Your task to perform on an android device: read, delete, or share a saved page in the chrome app Image 0: 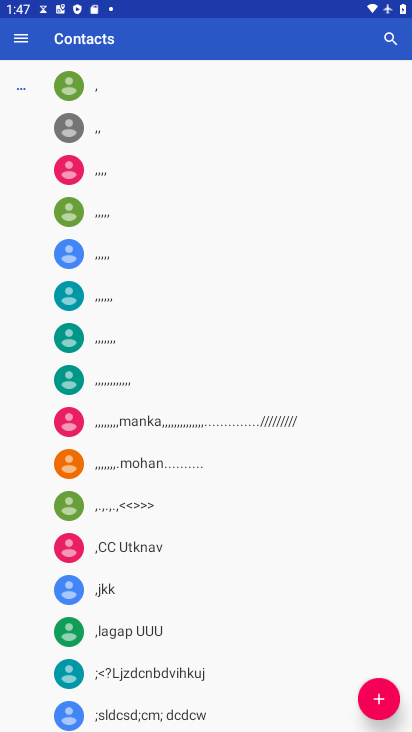
Step 0: press home button
Your task to perform on an android device: read, delete, or share a saved page in the chrome app Image 1: 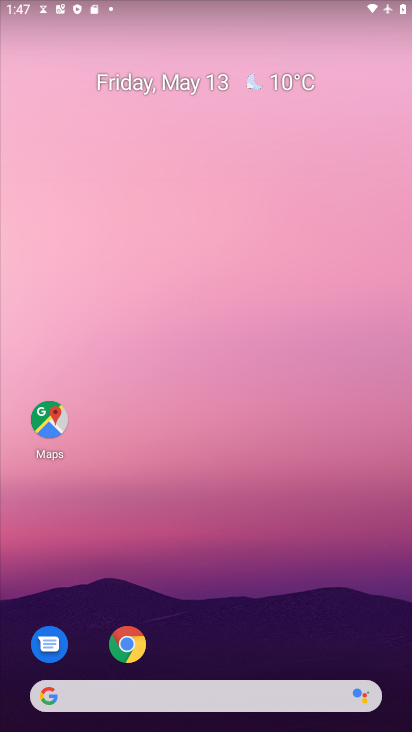
Step 1: click (128, 645)
Your task to perform on an android device: read, delete, or share a saved page in the chrome app Image 2: 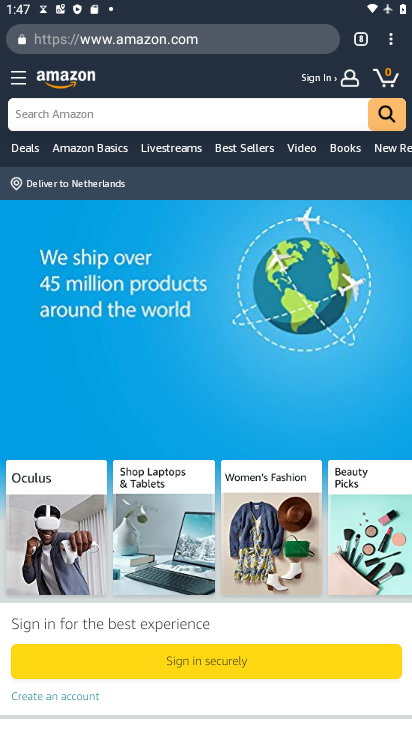
Step 2: click (391, 47)
Your task to perform on an android device: read, delete, or share a saved page in the chrome app Image 3: 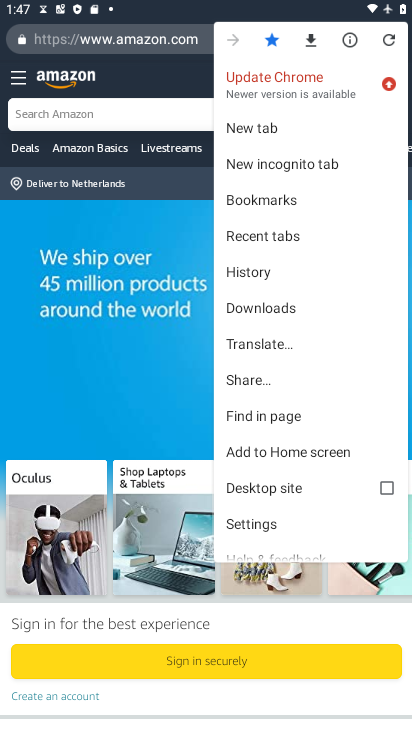
Step 3: click (263, 313)
Your task to perform on an android device: read, delete, or share a saved page in the chrome app Image 4: 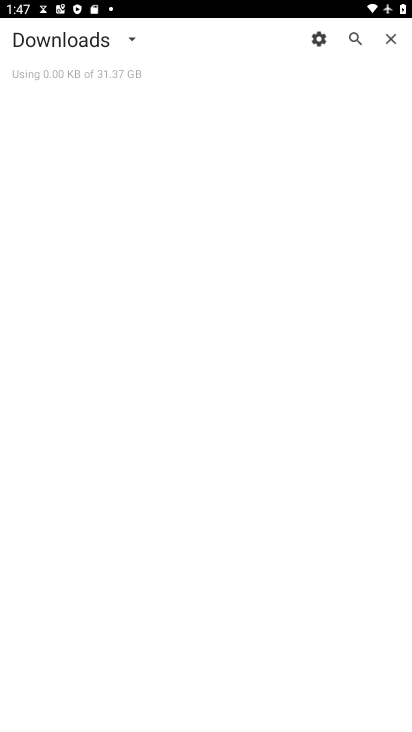
Step 4: click (130, 36)
Your task to perform on an android device: read, delete, or share a saved page in the chrome app Image 5: 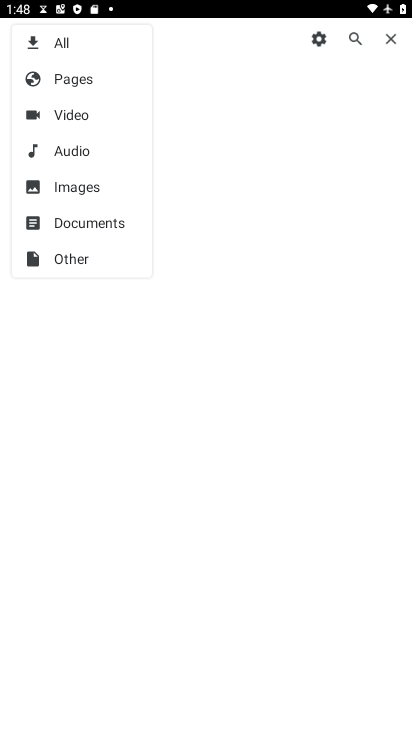
Step 5: click (75, 83)
Your task to perform on an android device: read, delete, or share a saved page in the chrome app Image 6: 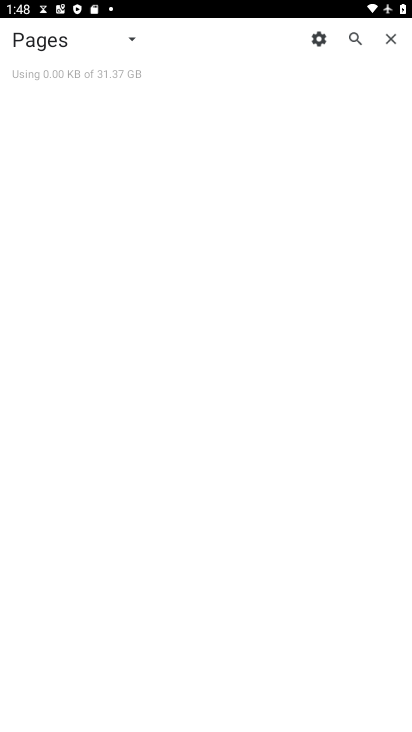
Step 6: task complete